Your task to perform on an android device: turn vacation reply on in the gmail app Image 0: 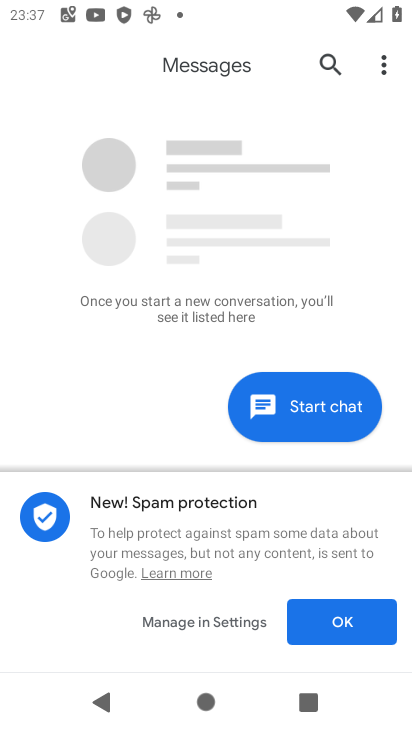
Step 0: press home button
Your task to perform on an android device: turn vacation reply on in the gmail app Image 1: 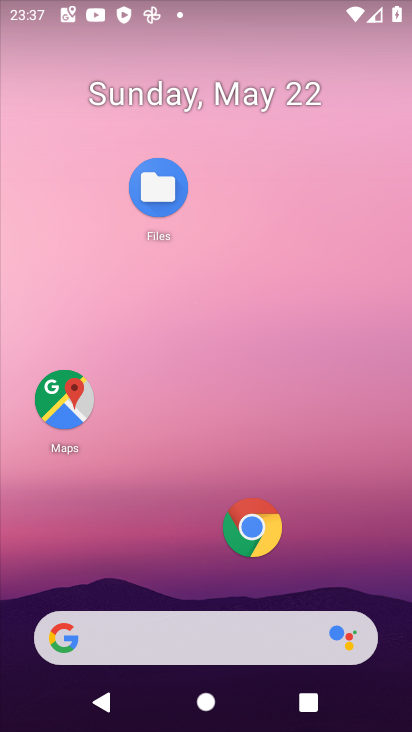
Step 1: drag from (154, 551) to (94, 5)
Your task to perform on an android device: turn vacation reply on in the gmail app Image 2: 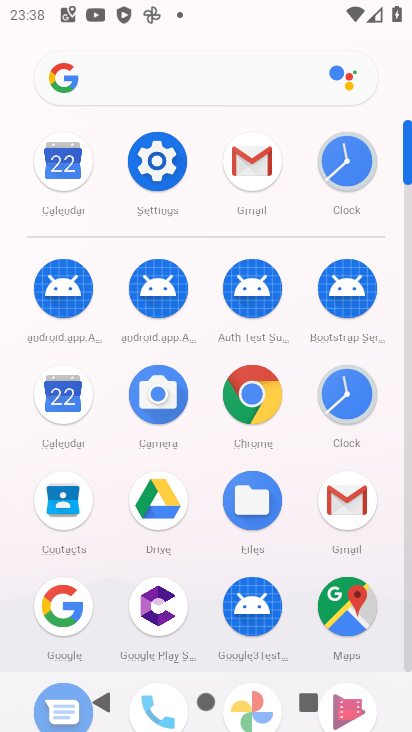
Step 2: click (250, 157)
Your task to perform on an android device: turn vacation reply on in the gmail app Image 3: 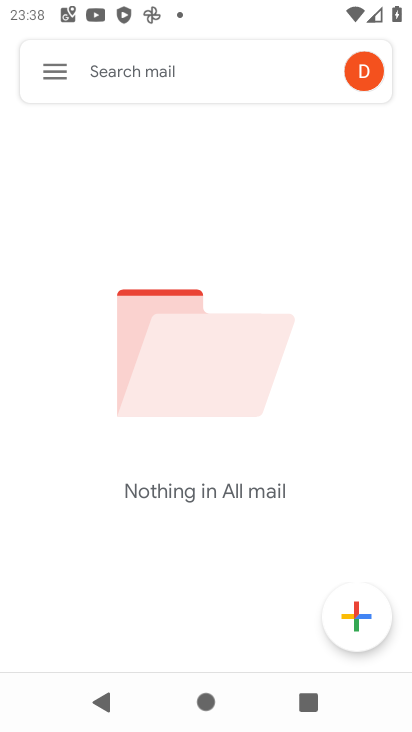
Step 3: click (54, 65)
Your task to perform on an android device: turn vacation reply on in the gmail app Image 4: 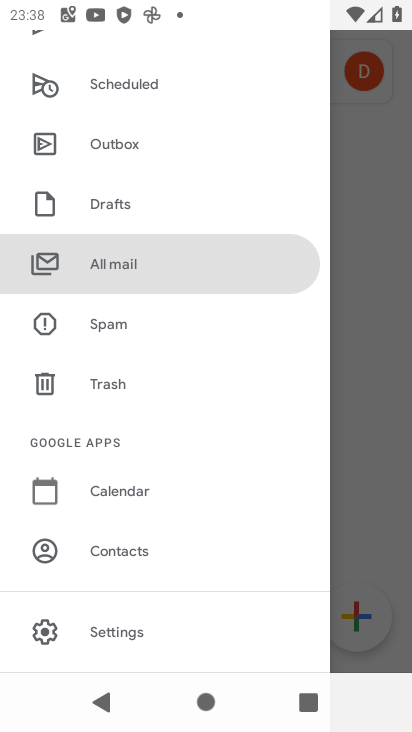
Step 4: click (130, 632)
Your task to perform on an android device: turn vacation reply on in the gmail app Image 5: 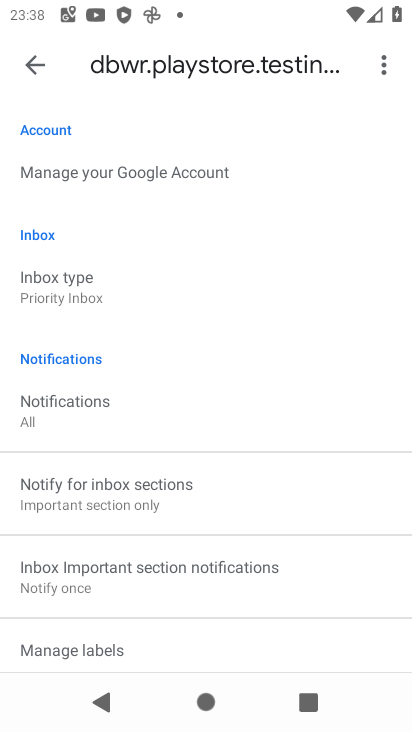
Step 5: drag from (195, 387) to (145, 104)
Your task to perform on an android device: turn vacation reply on in the gmail app Image 6: 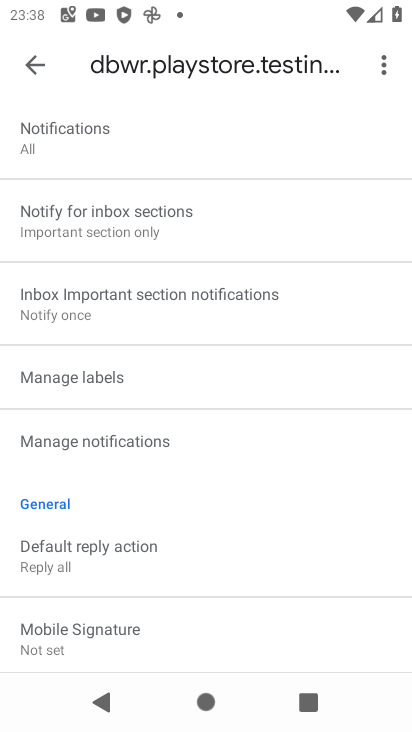
Step 6: drag from (176, 437) to (127, 212)
Your task to perform on an android device: turn vacation reply on in the gmail app Image 7: 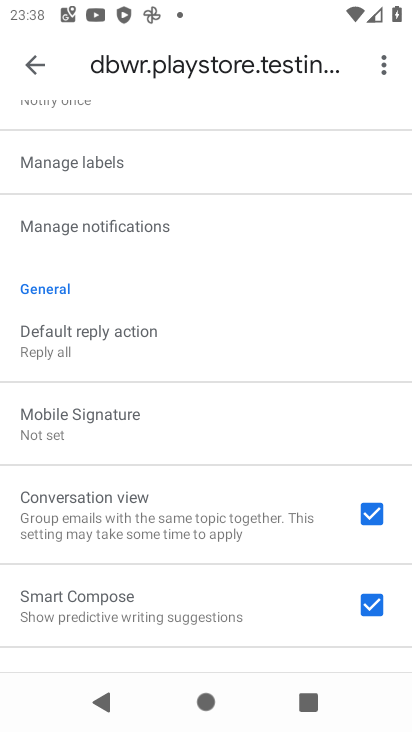
Step 7: drag from (182, 353) to (112, 48)
Your task to perform on an android device: turn vacation reply on in the gmail app Image 8: 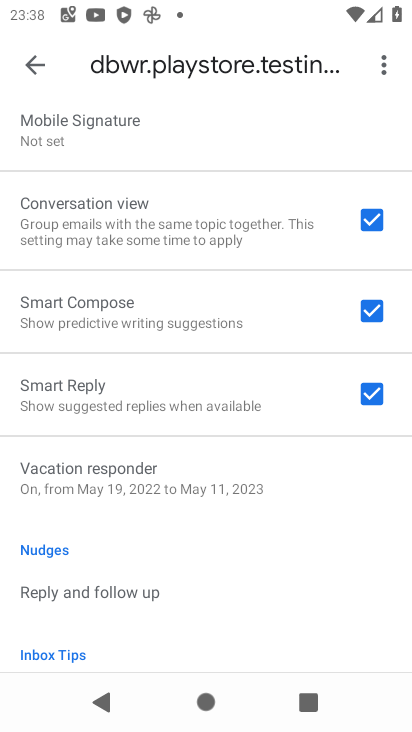
Step 8: click (100, 467)
Your task to perform on an android device: turn vacation reply on in the gmail app Image 9: 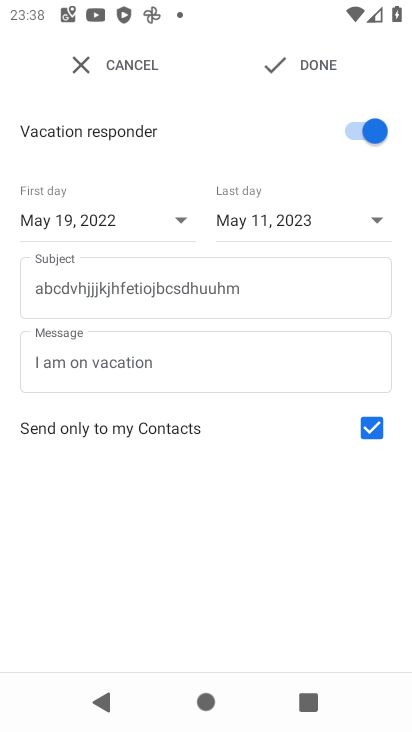
Step 9: task complete